Your task to perform on an android device: Open eBay Image 0: 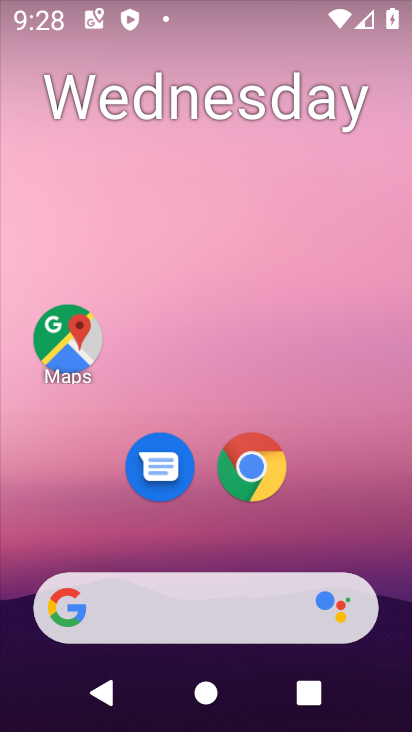
Step 0: click (265, 462)
Your task to perform on an android device: Open eBay Image 1: 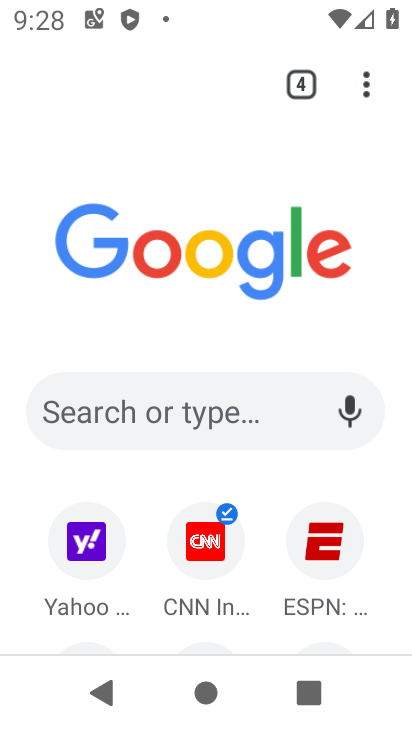
Step 1: drag from (272, 497) to (292, 146)
Your task to perform on an android device: Open eBay Image 2: 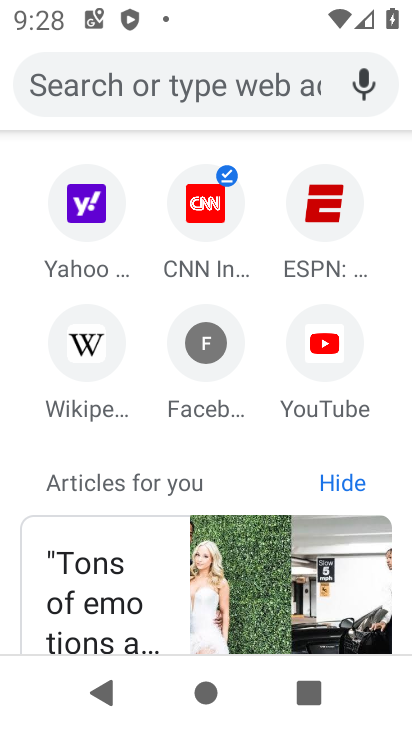
Step 2: drag from (265, 162) to (234, 551)
Your task to perform on an android device: Open eBay Image 3: 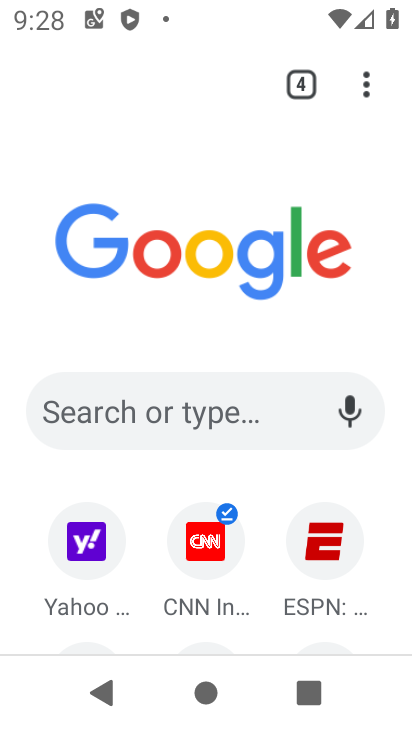
Step 3: click (118, 405)
Your task to perform on an android device: Open eBay Image 4: 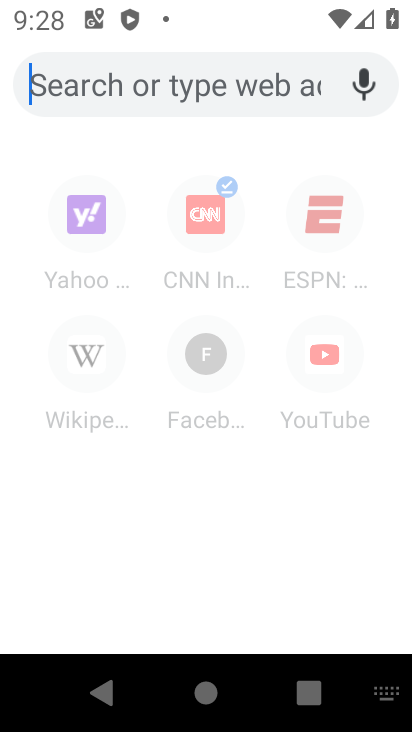
Step 4: type "e"
Your task to perform on an android device: Open eBay Image 5: 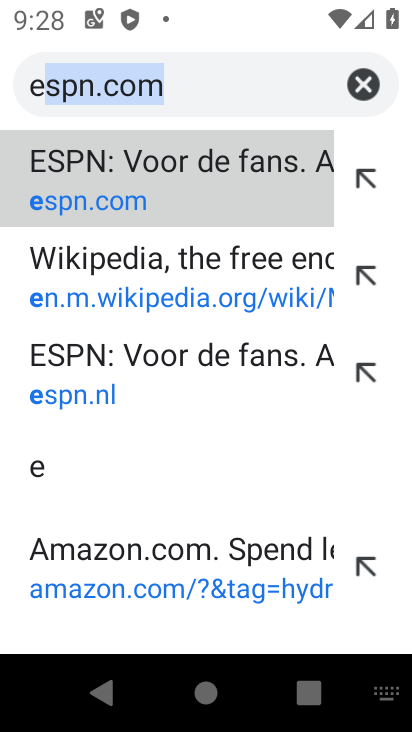
Step 5: type "eBay"
Your task to perform on an android device: Open eBay Image 6: 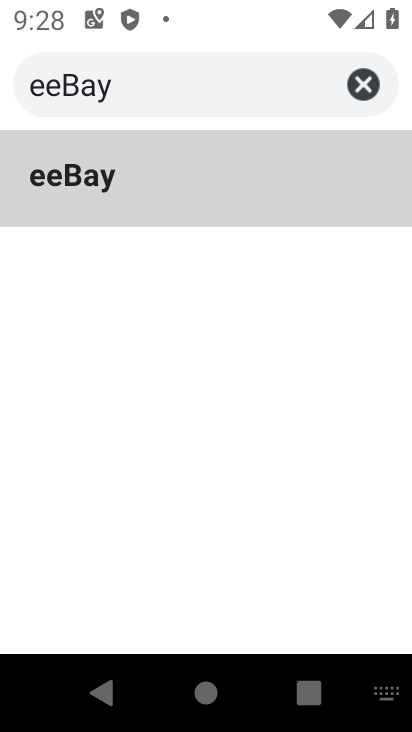
Step 6: click (48, 86)
Your task to perform on an android device: Open eBay Image 7: 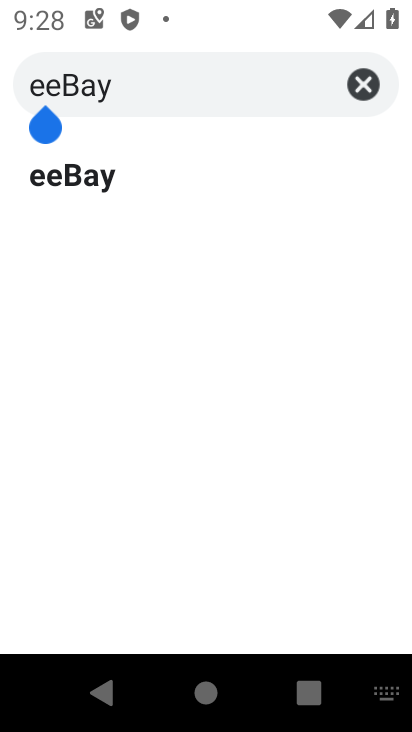
Step 7: click (274, 82)
Your task to perform on an android device: Open eBay Image 8: 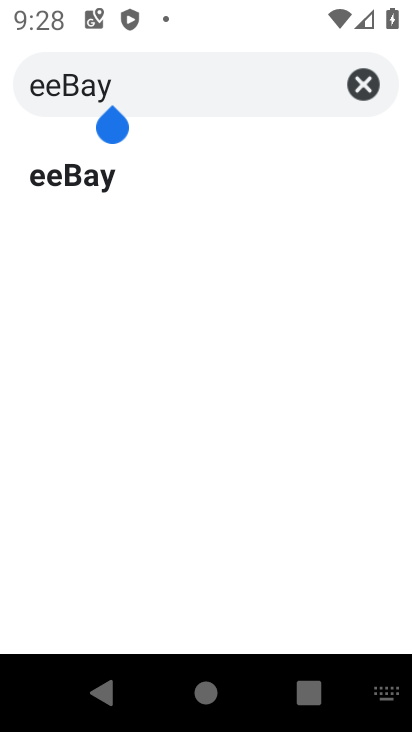
Step 8: click (356, 82)
Your task to perform on an android device: Open eBay Image 9: 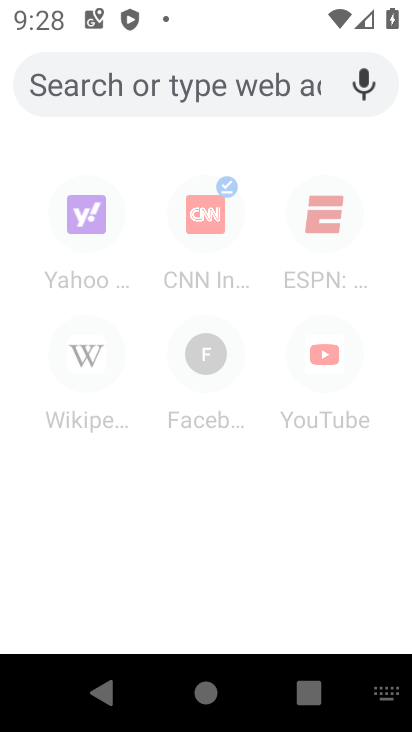
Step 9: type "eBay"
Your task to perform on an android device: Open eBay Image 10: 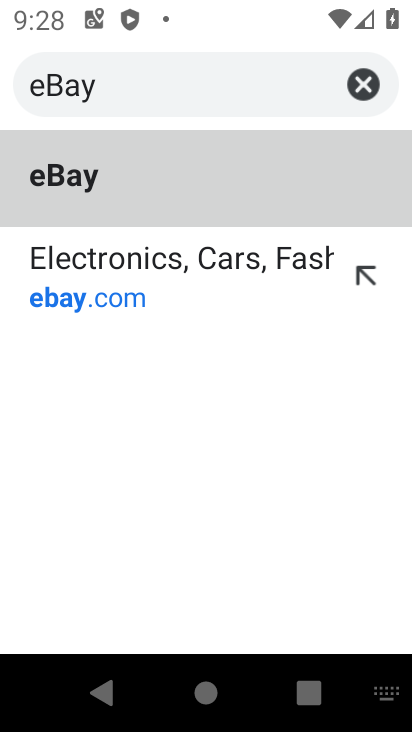
Step 10: click (184, 274)
Your task to perform on an android device: Open eBay Image 11: 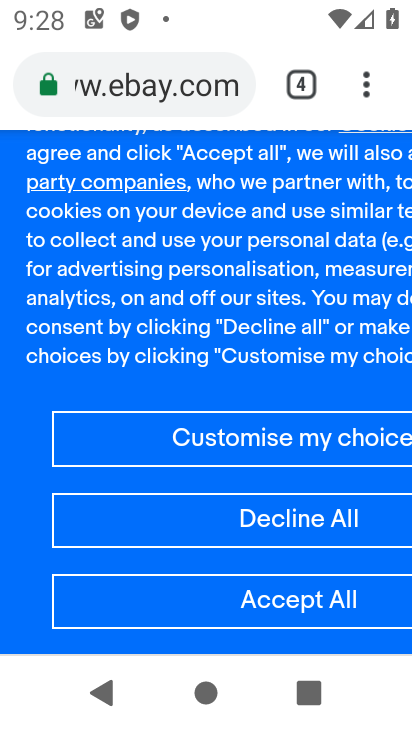
Step 11: task complete